Your task to perform on an android device: Search for sushi restaurants on Maps Image 0: 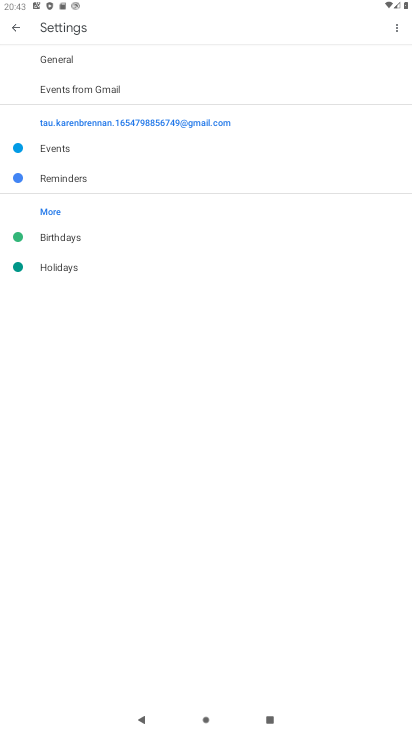
Step 0: press home button
Your task to perform on an android device: Search for sushi restaurants on Maps Image 1: 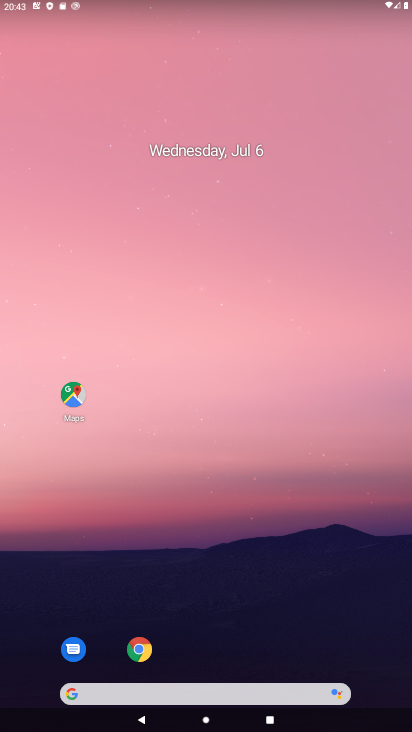
Step 1: click (67, 393)
Your task to perform on an android device: Search for sushi restaurants on Maps Image 2: 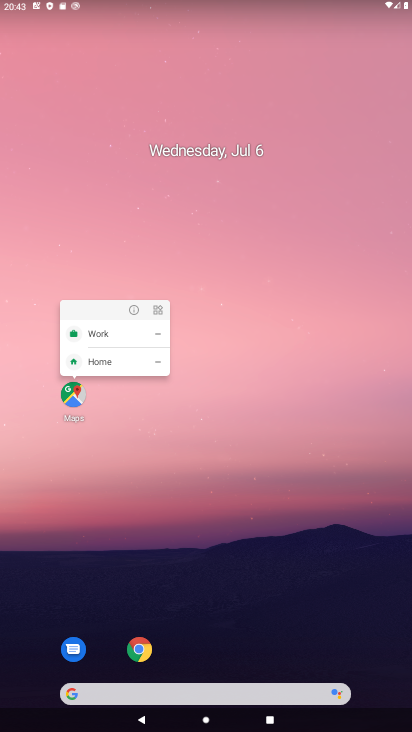
Step 2: click (77, 397)
Your task to perform on an android device: Search for sushi restaurants on Maps Image 3: 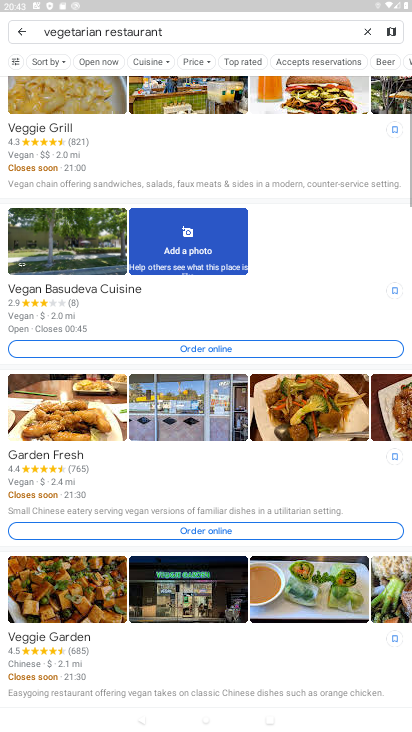
Step 3: click (364, 29)
Your task to perform on an android device: Search for sushi restaurants on Maps Image 4: 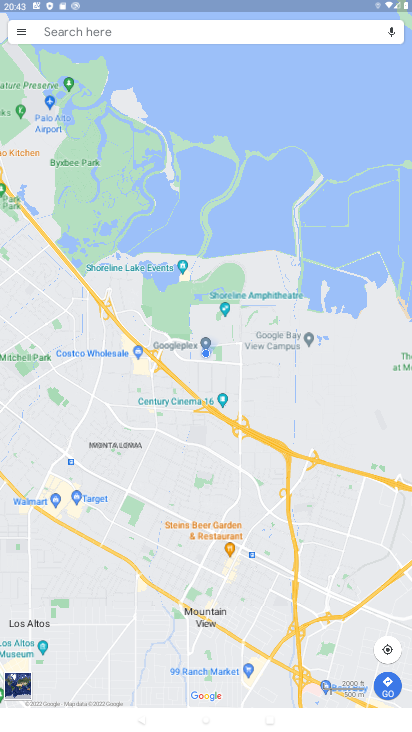
Step 4: click (241, 28)
Your task to perform on an android device: Search for sushi restaurants on Maps Image 5: 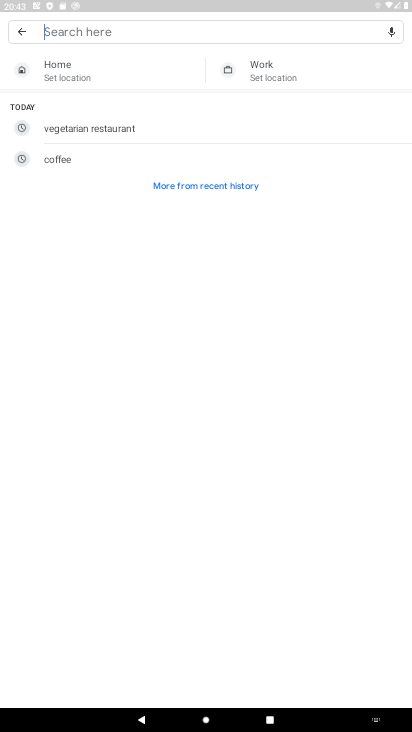
Step 5: type "sushi restaurants"
Your task to perform on an android device: Search for sushi restaurants on Maps Image 6: 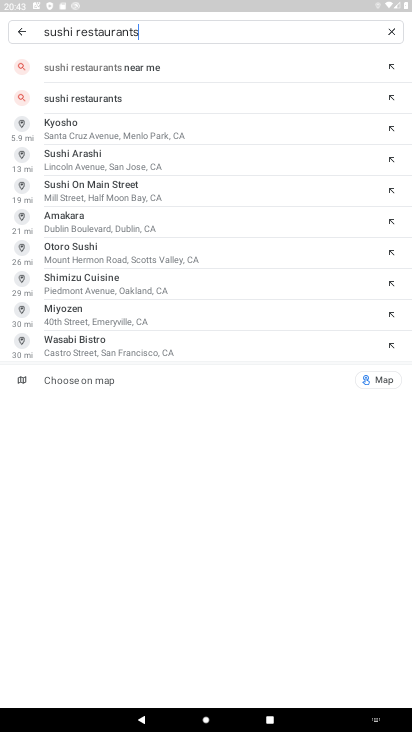
Step 6: click (118, 96)
Your task to perform on an android device: Search for sushi restaurants on Maps Image 7: 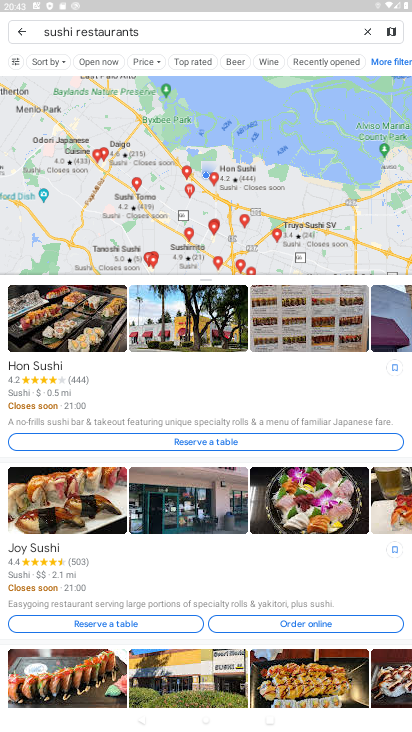
Step 7: task complete